Your task to perform on an android device: turn off wifi Image 0: 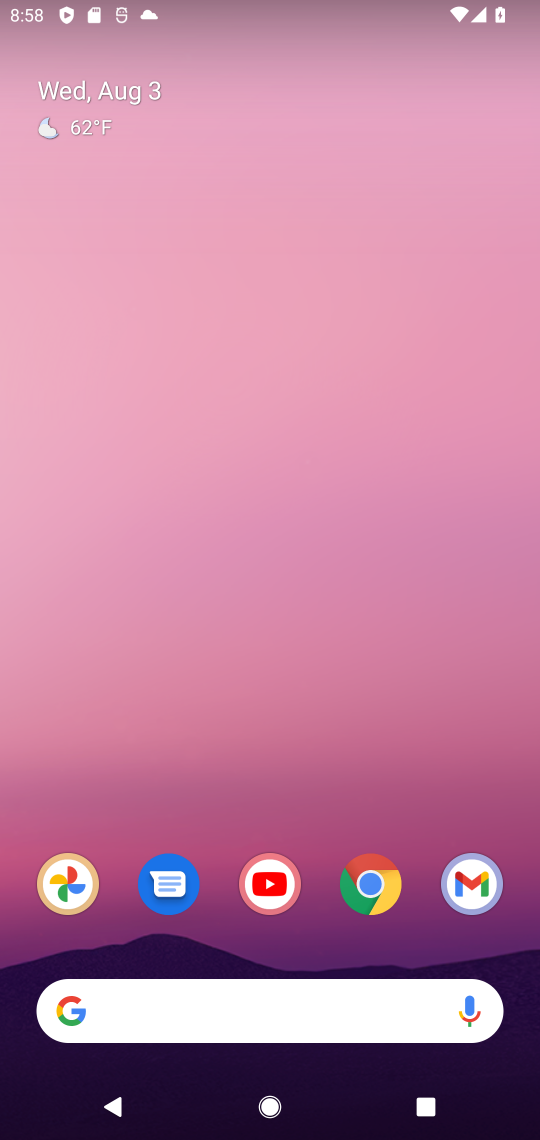
Step 0: drag from (239, 957) to (290, 623)
Your task to perform on an android device: turn off wifi Image 1: 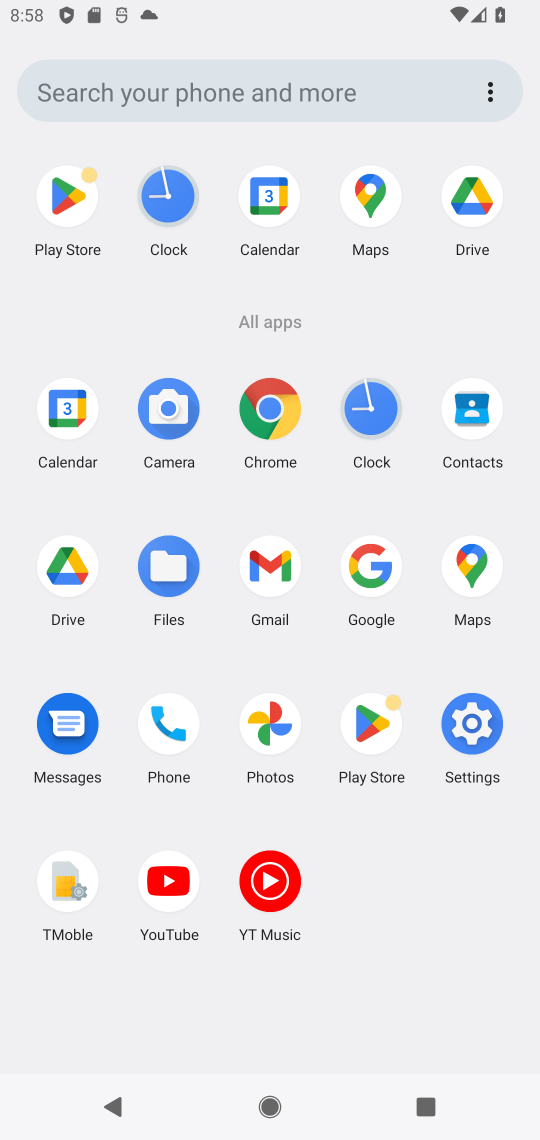
Step 1: click (476, 742)
Your task to perform on an android device: turn off wifi Image 2: 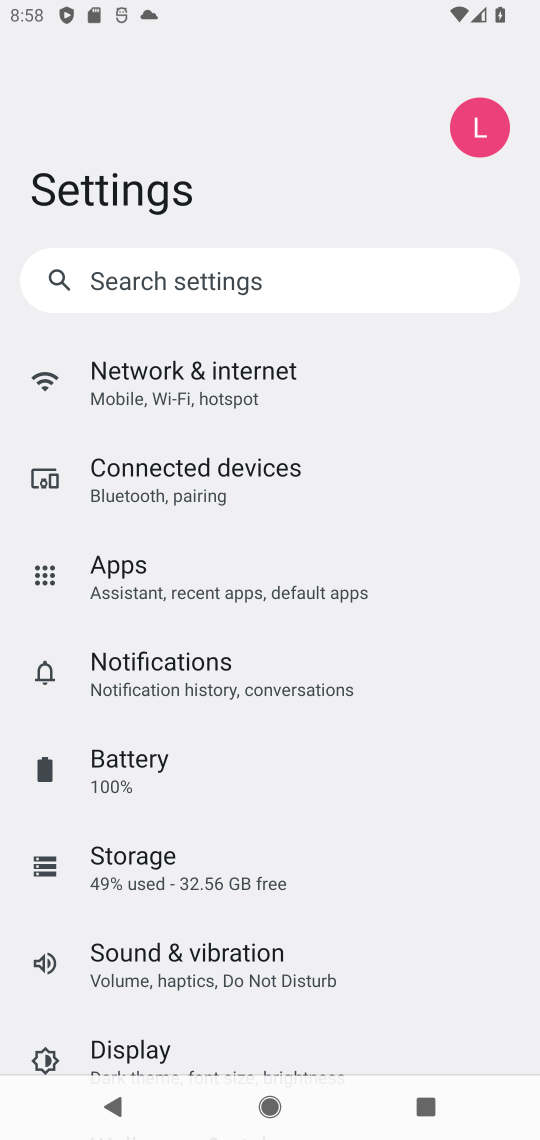
Step 2: click (153, 398)
Your task to perform on an android device: turn off wifi Image 3: 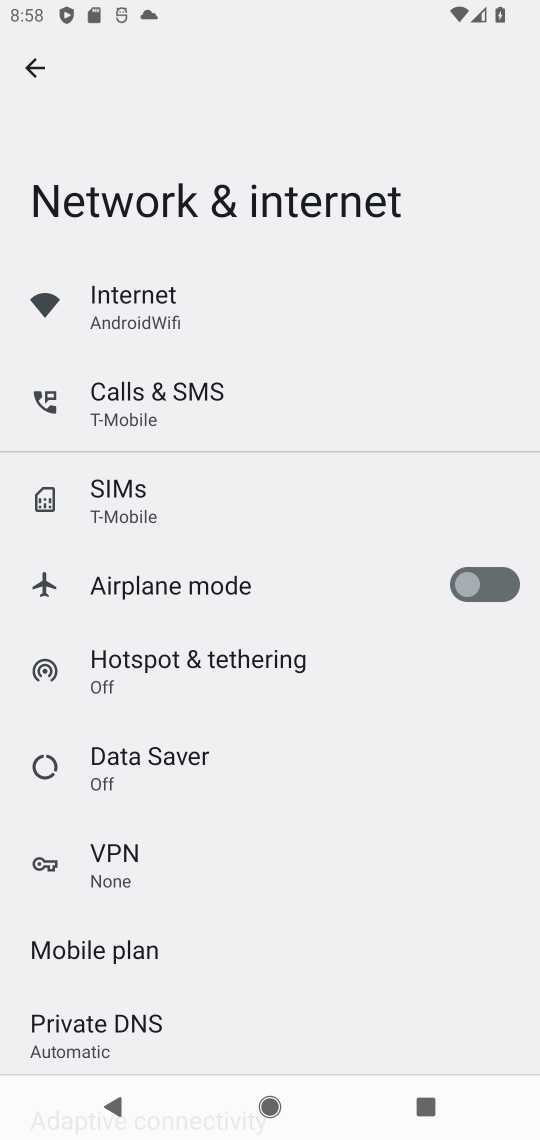
Step 3: click (177, 330)
Your task to perform on an android device: turn off wifi Image 4: 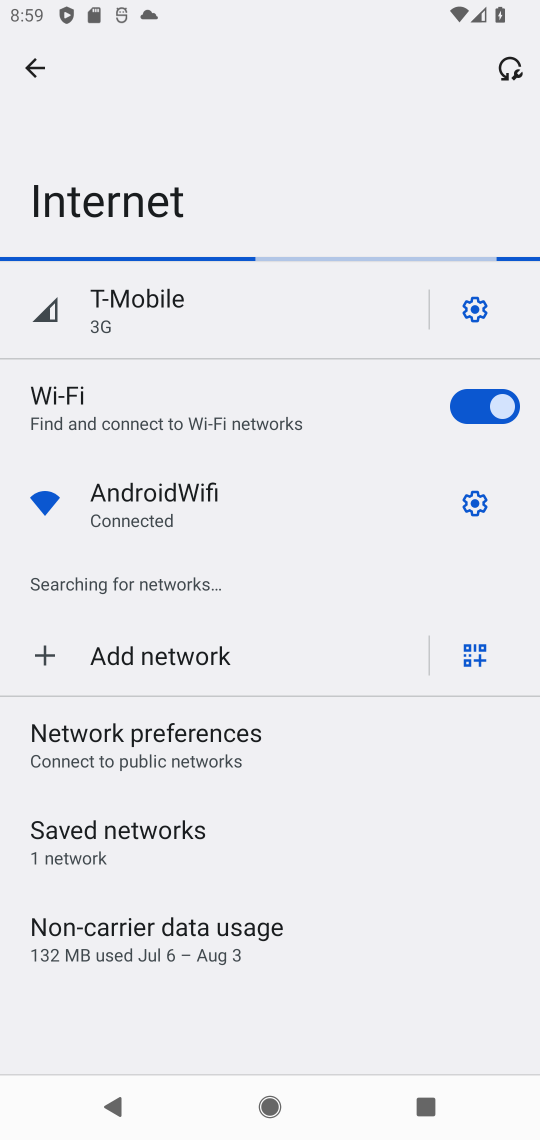
Step 4: click (474, 400)
Your task to perform on an android device: turn off wifi Image 5: 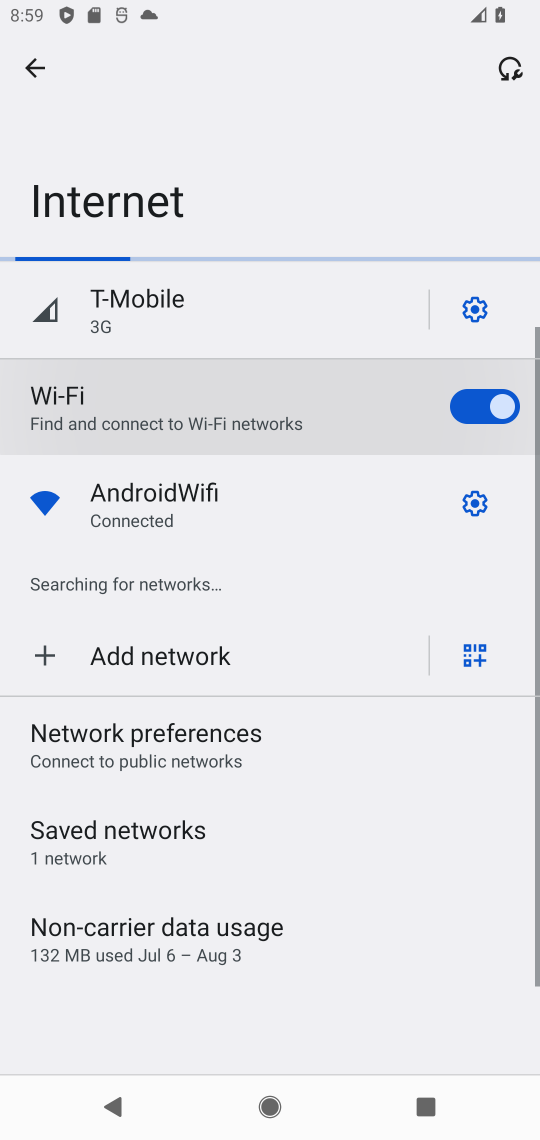
Step 5: task complete